Your task to perform on an android device: toggle notification dots Image 0: 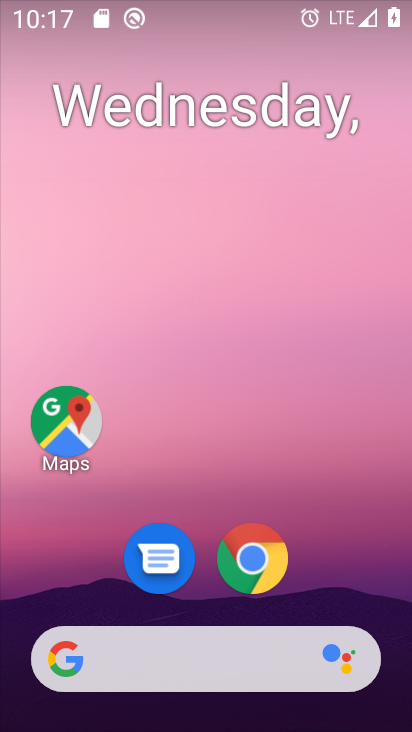
Step 0: drag from (362, 588) to (361, 127)
Your task to perform on an android device: toggle notification dots Image 1: 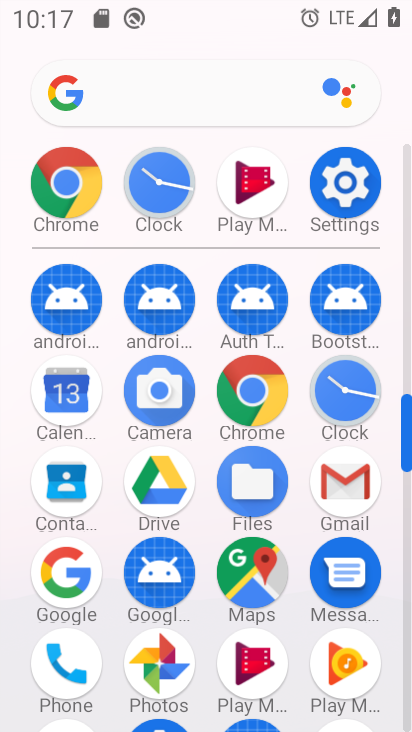
Step 1: click (356, 199)
Your task to perform on an android device: toggle notification dots Image 2: 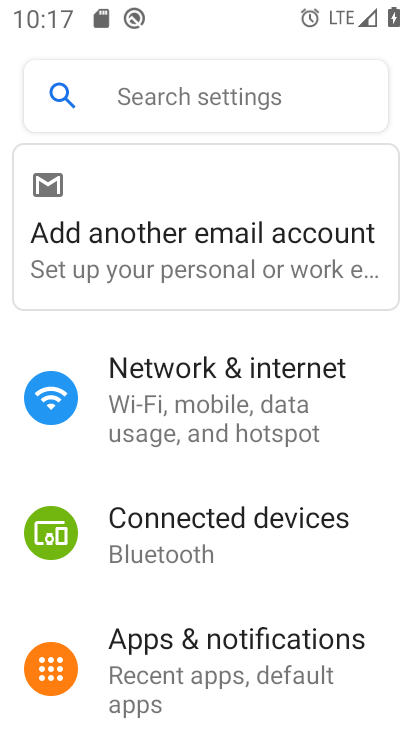
Step 2: drag from (352, 446) to (374, 353)
Your task to perform on an android device: toggle notification dots Image 3: 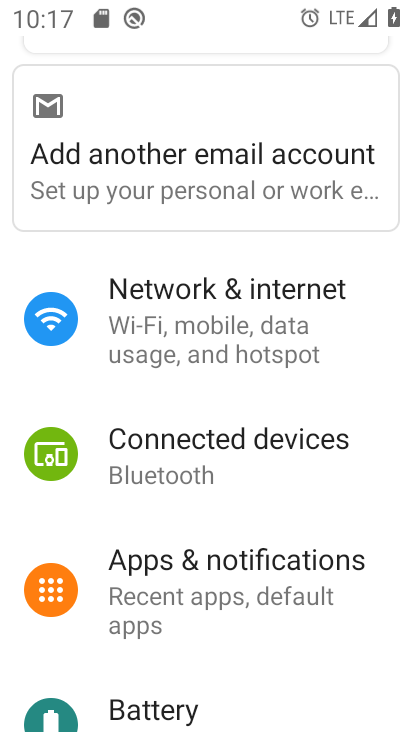
Step 3: drag from (362, 491) to (382, 368)
Your task to perform on an android device: toggle notification dots Image 4: 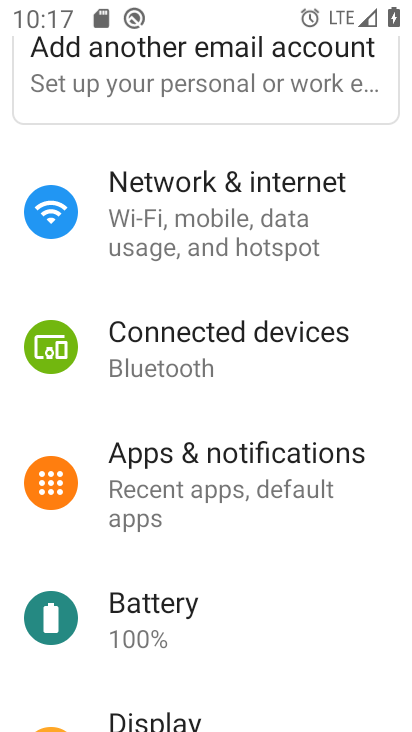
Step 4: drag from (341, 527) to (345, 289)
Your task to perform on an android device: toggle notification dots Image 5: 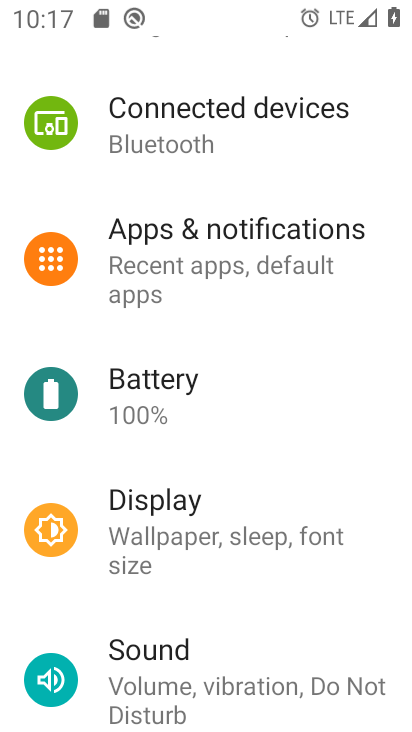
Step 5: drag from (361, 473) to (366, 357)
Your task to perform on an android device: toggle notification dots Image 6: 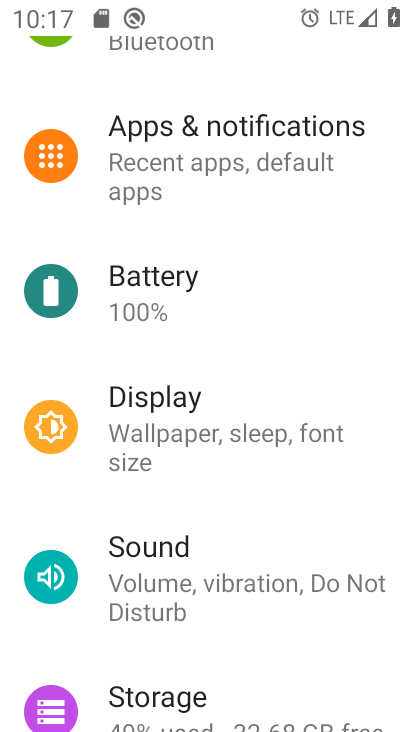
Step 6: drag from (361, 503) to (357, 292)
Your task to perform on an android device: toggle notification dots Image 7: 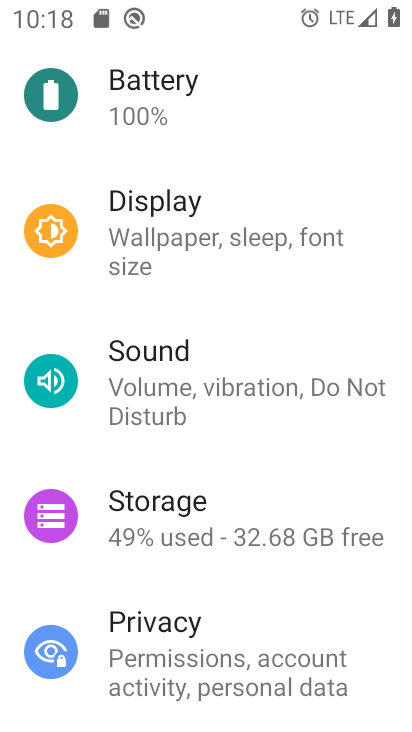
Step 7: drag from (350, 488) to (348, 356)
Your task to perform on an android device: toggle notification dots Image 8: 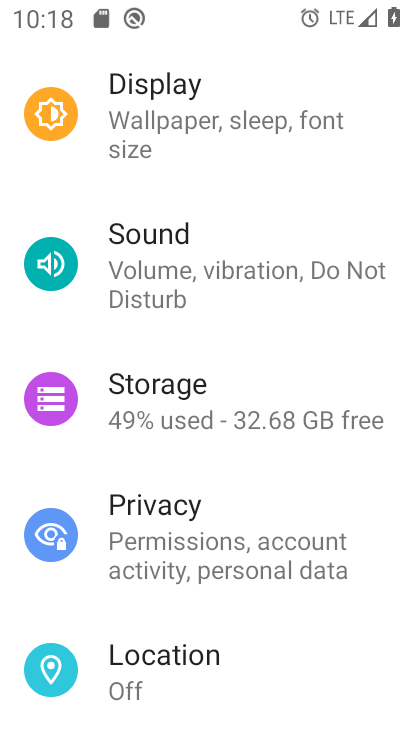
Step 8: drag from (376, 543) to (382, 407)
Your task to perform on an android device: toggle notification dots Image 9: 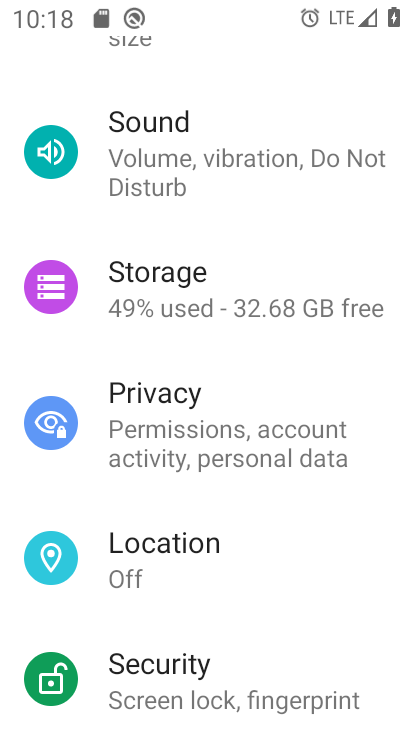
Step 9: drag from (344, 593) to (354, 351)
Your task to perform on an android device: toggle notification dots Image 10: 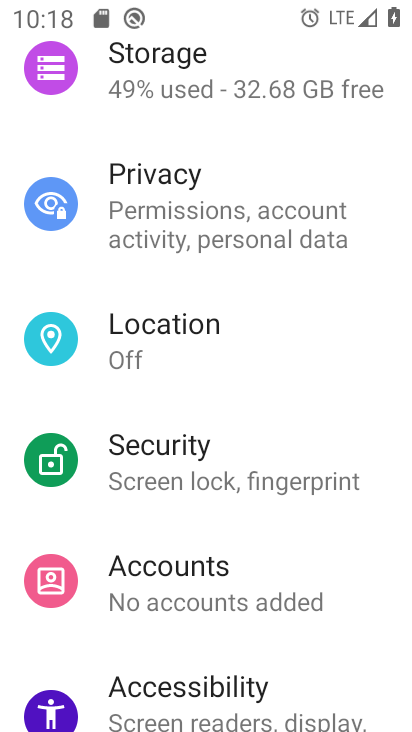
Step 10: drag from (366, 287) to (338, 411)
Your task to perform on an android device: toggle notification dots Image 11: 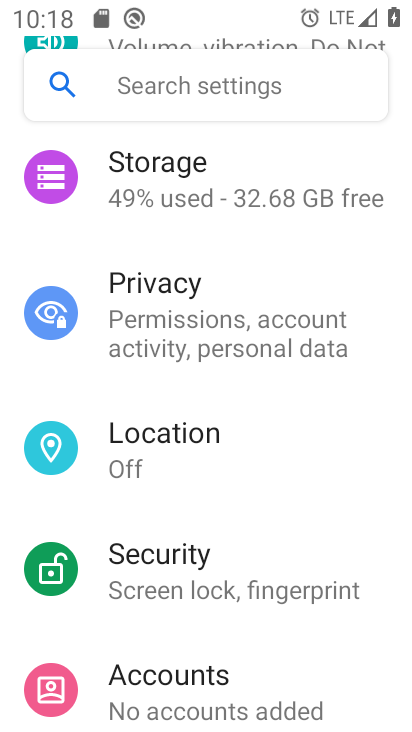
Step 11: drag from (342, 263) to (337, 419)
Your task to perform on an android device: toggle notification dots Image 12: 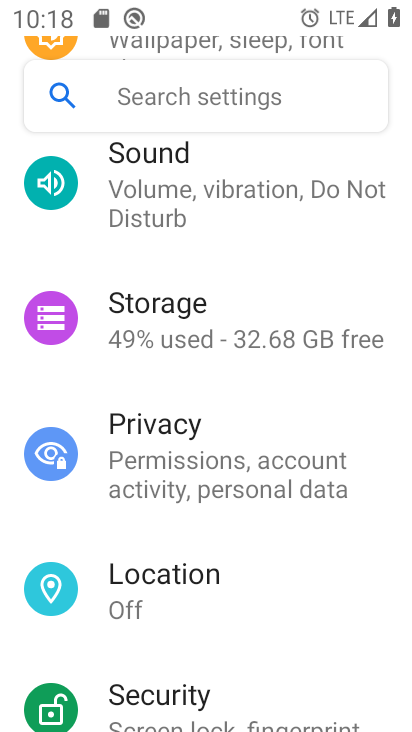
Step 12: drag from (359, 263) to (358, 451)
Your task to perform on an android device: toggle notification dots Image 13: 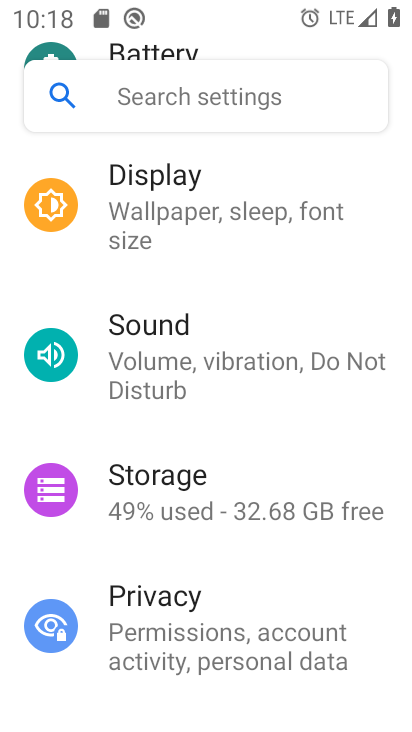
Step 13: drag from (372, 257) to (357, 496)
Your task to perform on an android device: toggle notification dots Image 14: 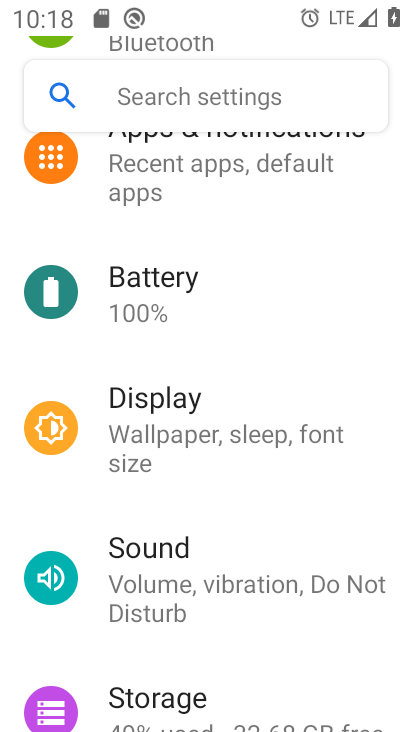
Step 14: drag from (360, 265) to (362, 446)
Your task to perform on an android device: toggle notification dots Image 15: 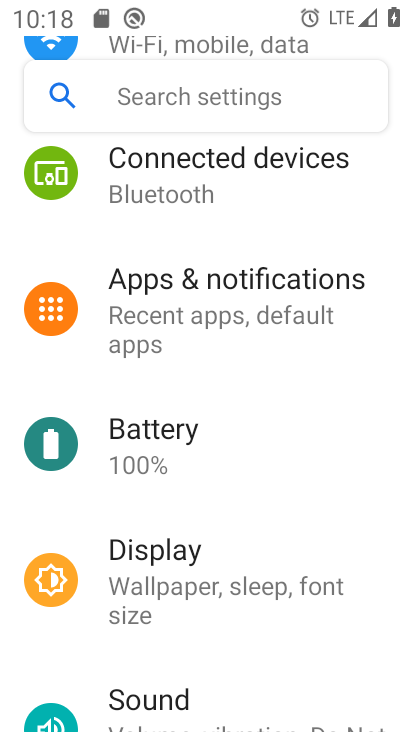
Step 15: drag from (369, 343) to (369, 507)
Your task to perform on an android device: toggle notification dots Image 16: 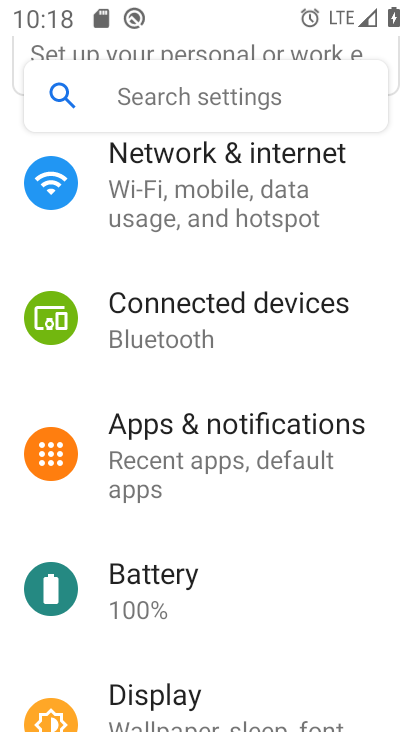
Step 16: click (292, 445)
Your task to perform on an android device: toggle notification dots Image 17: 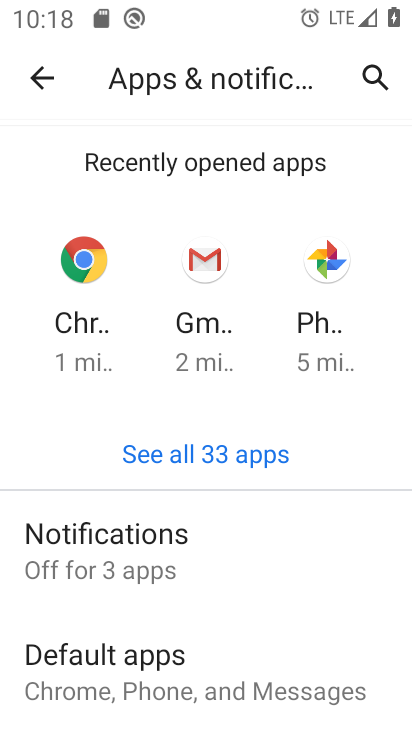
Step 17: drag from (324, 544) to (350, 324)
Your task to perform on an android device: toggle notification dots Image 18: 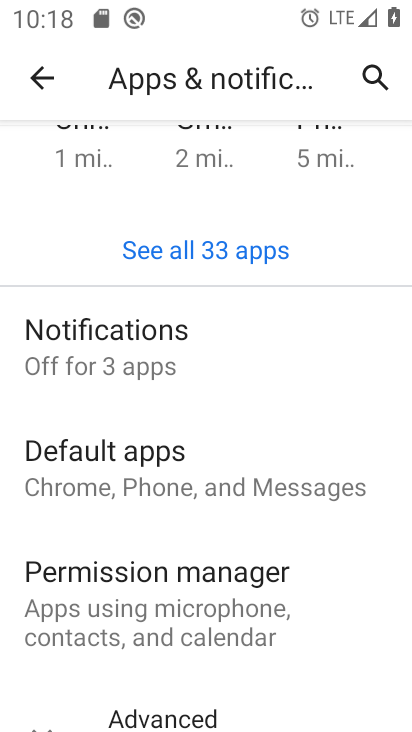
Step 18: click (118, 341)
Your task to perform on an android device: toggle notification dots Image 19: 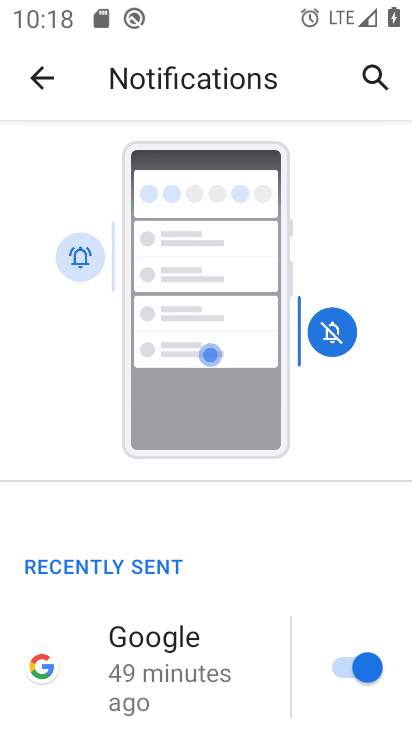
Step 19: drag from (293, 532) to (297, 375)
Your task to perform on an android device: toggle notification dots Image 20: 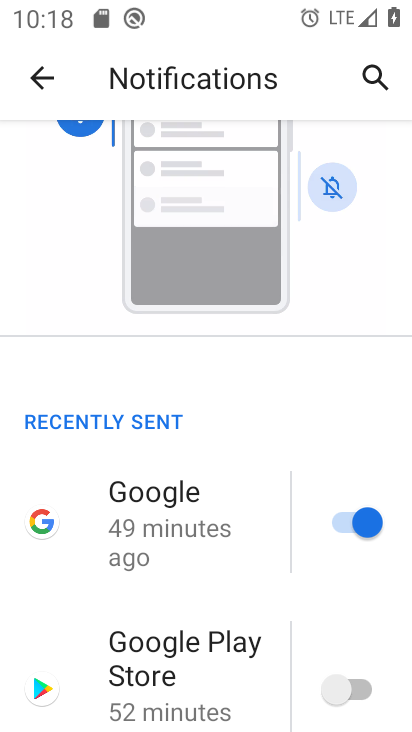
Step 20: drag from (284, 542) to (292, 372)
Your task to perform on an android device: toggle notification dots Image 21: 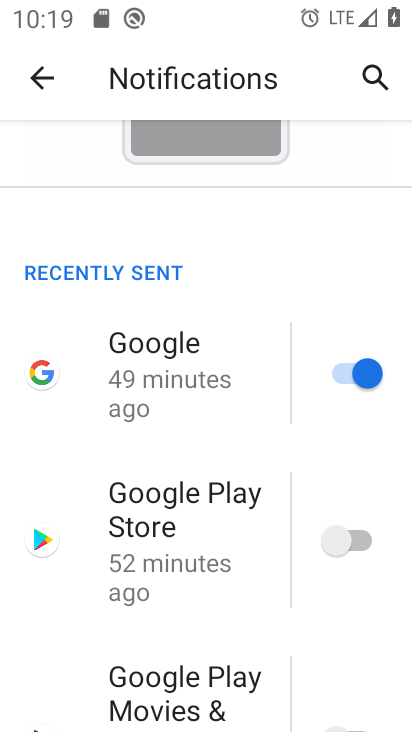
Step 21: drag from (263, 560) to (290, 329)
Your task to perform on an android device: toggle notification dots Image 22: 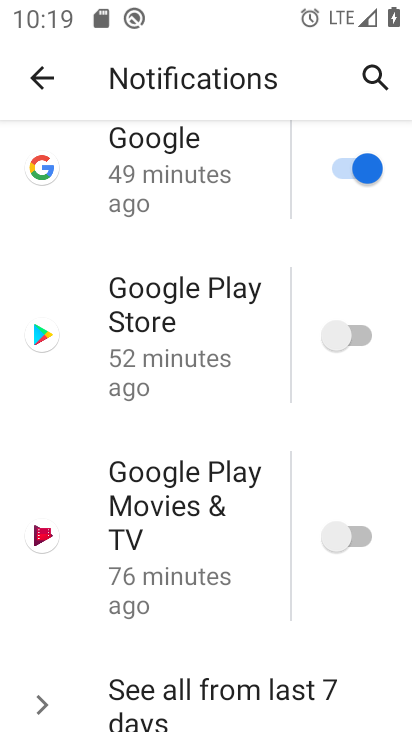
Step 22: drag from (244, 580) to (262, 399)
Your task to perform on an android device: toggle notification dots Image 23: 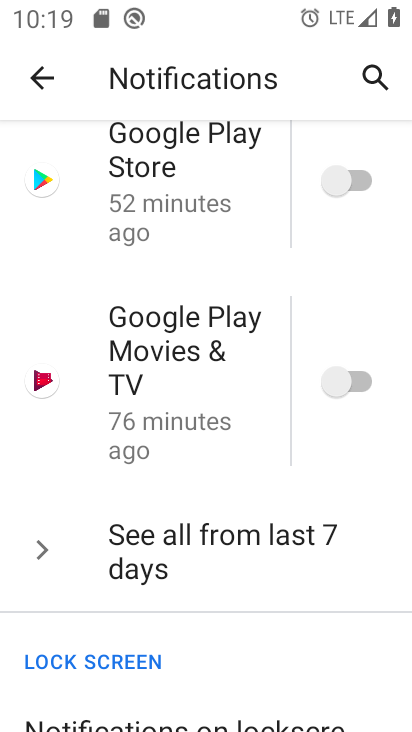
Step 23: drag from (279, 617) to (288, 294)
Your task to perform on an android device: toggle notification dots Image 24: 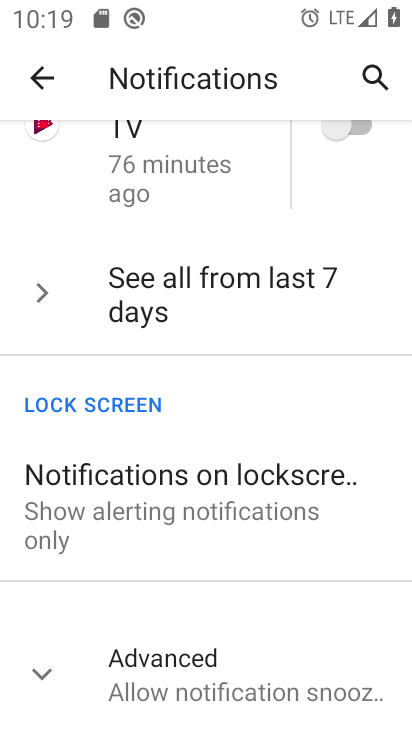
Step 24: click (245, 669)
Your task to perform on an android device: toggle notification dots Image 25: 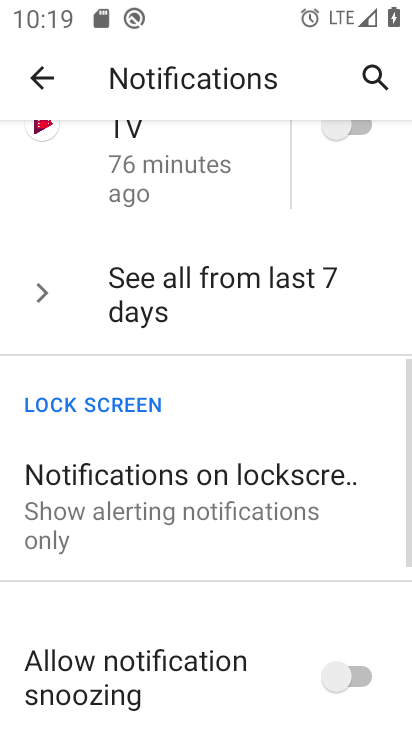
Step 25: drag from (268, 657) to (283, 502)
Your task to perform on an android device: toggle notification dots Image 26: 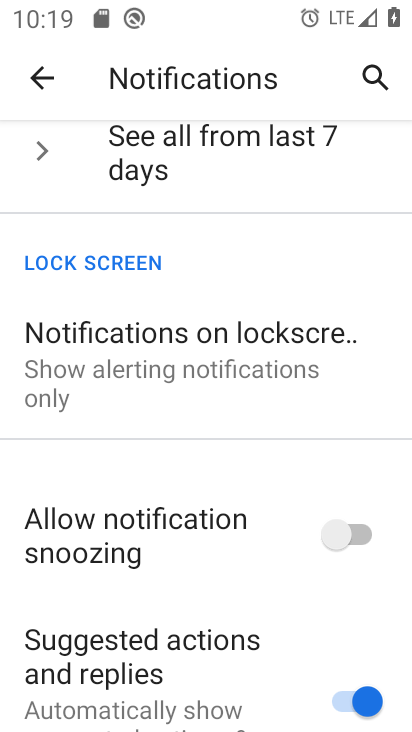
Step 26: drag from (299, 656) to (291, 442)
Your task to perform on an android device: toggle notification dots Image 27: 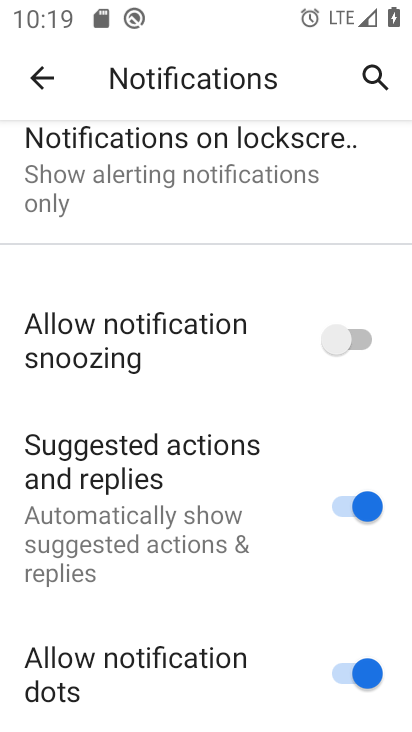
Step 27: drag from (278, 624) to (279, 430)
Your task to perform on an android device: toggle notification dots Image 28: 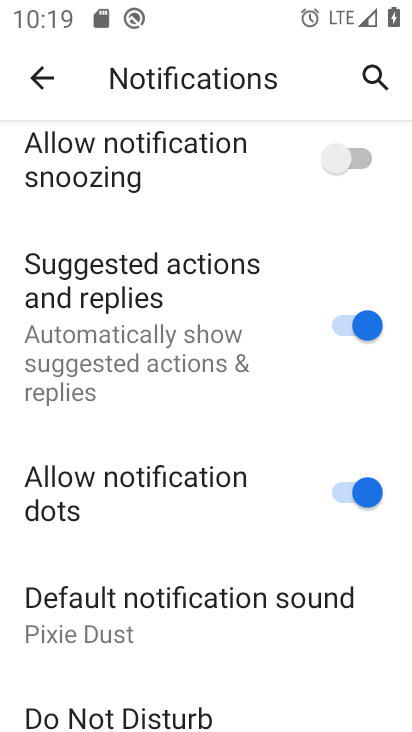
Step 28: click (355, 489)
Your task to perform on an android device: toggle notification dots Image 29: 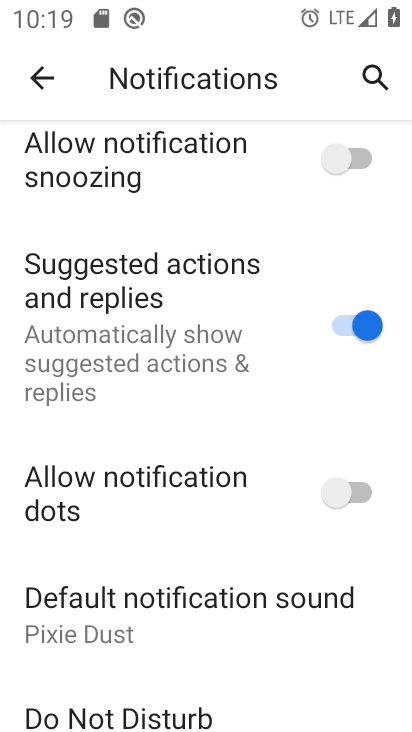
Step 29: task complete